Your task to perform on an android device: uninstall "Etsy: Buy & Sell Unique Items" Image 0: 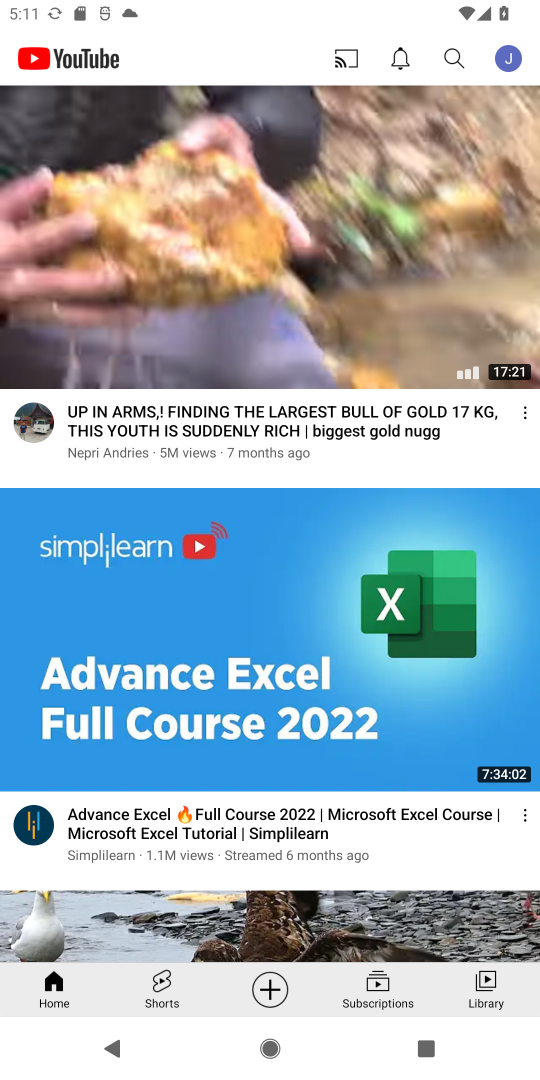
Step 0: press home button
Your task to perform on an android device: uninstall "Etsy: Buy & Sell Unique Items" Image 1: 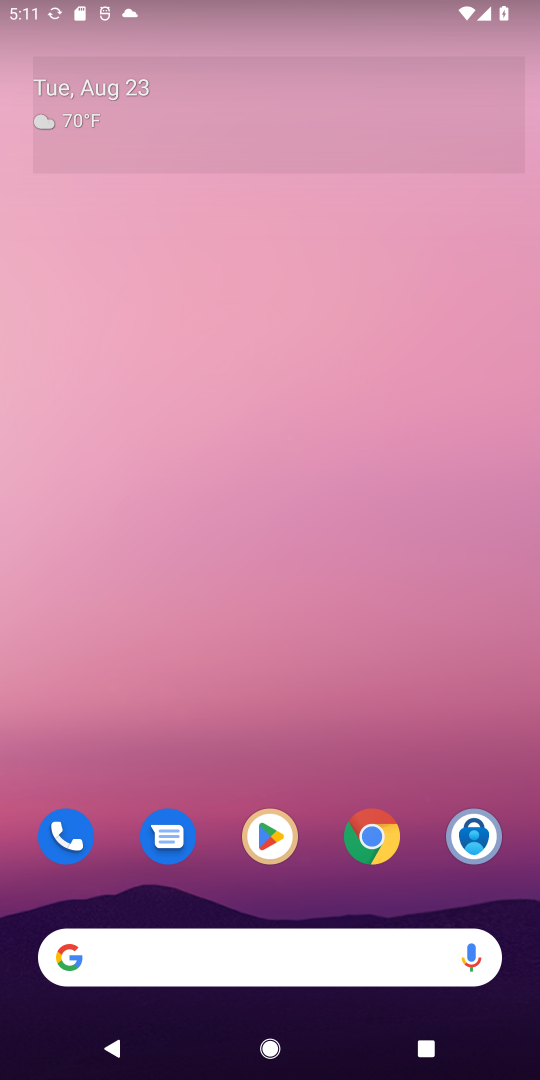
Step 1: click (271, 832)
Your task to perform on an android device: uninstall "Etsy: Buy & Sell Unique Items" Image 2: 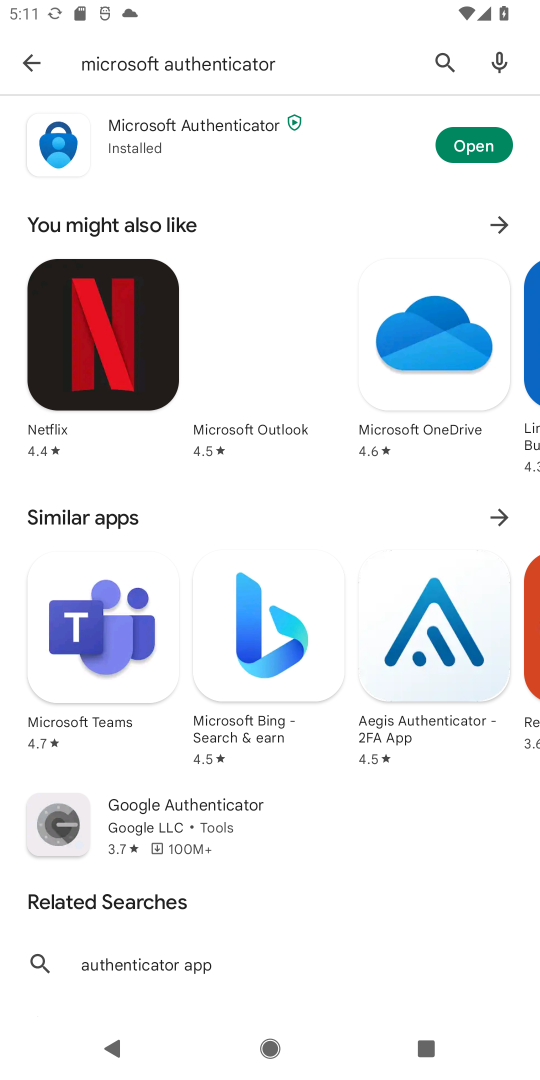
Step 2: click (439, 50)
Your task to perform on an android device: uninstall "Etsy: Buy & Sell Unique Items" Image 3: 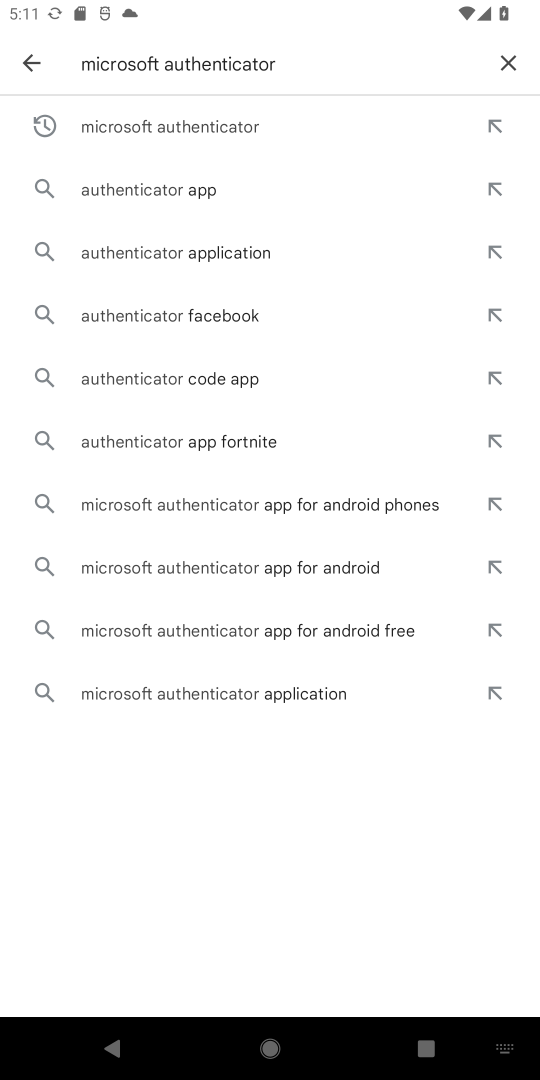
Step 3: click (507, 61)
Your task to perform on an android device: uninstall "Etsy: Buy & Sell Unique Items" Image 4: 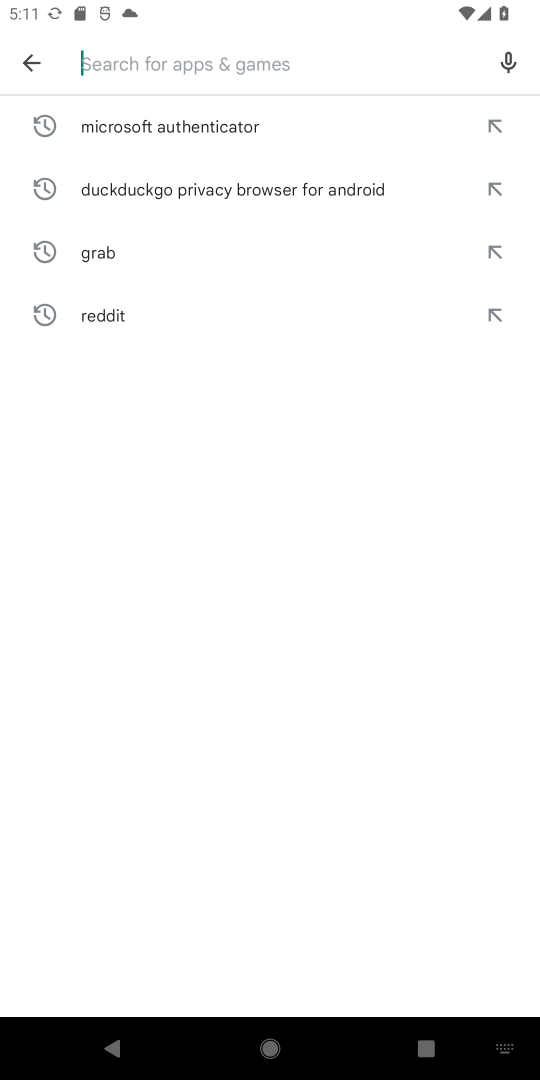
Step 4: type "Etsy: Buy & Sell Unique Items"
Your task to perform on an android device: uninstall "Etsy: Buy & Sell Unique Items" Image 5: 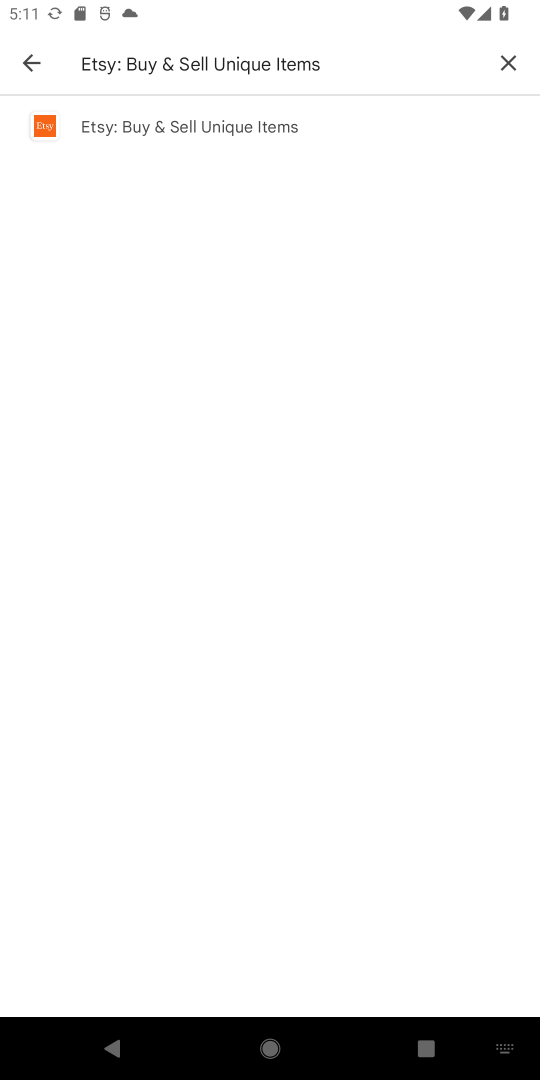
Step 5: click (150, 119)
Your task to perform on an android device: uninstall "Etsy: Buy & Sell Unique Items" Image 6: 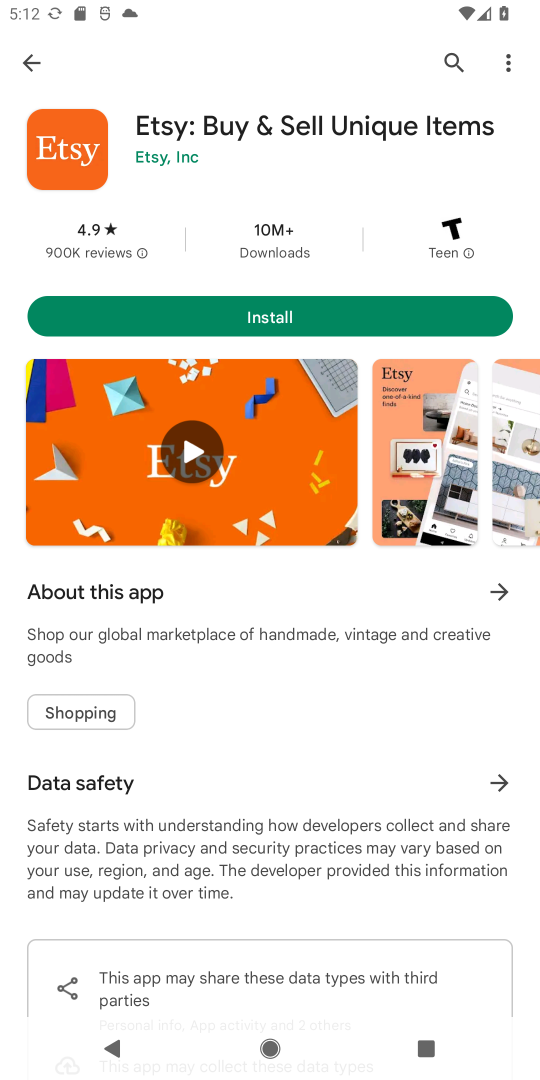
Step 6: task complete